Your task to perform on an android device: Do I have any events this weekend? Image 0: 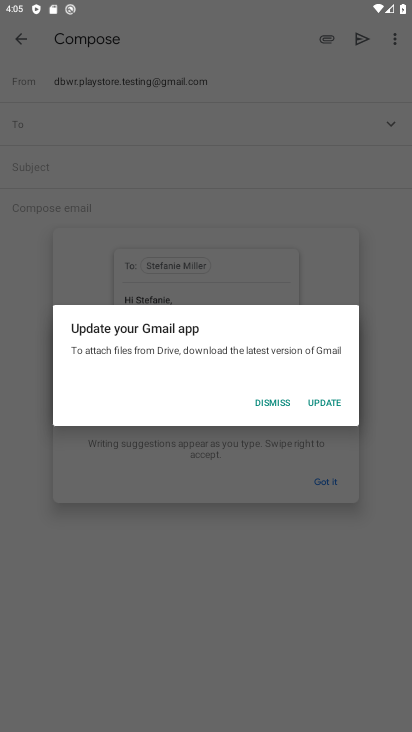
Step 0: press home button
Your task to perform on an android device: Do I have any events this weekend? Image 1: 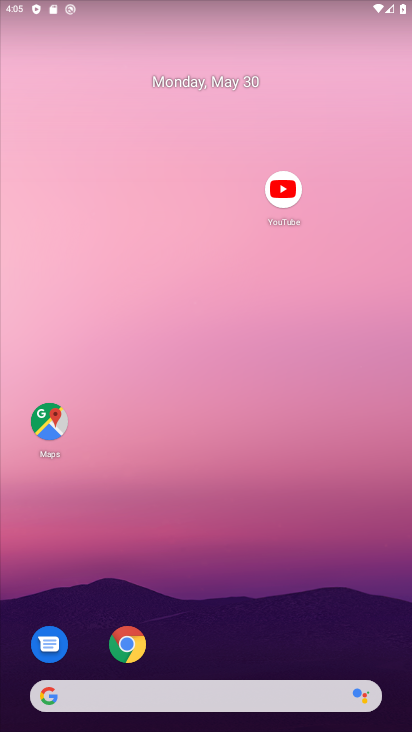
Step 1: click (197, 79)
Your task to perform on an android device: Do I have any events this weekend? Image 2: 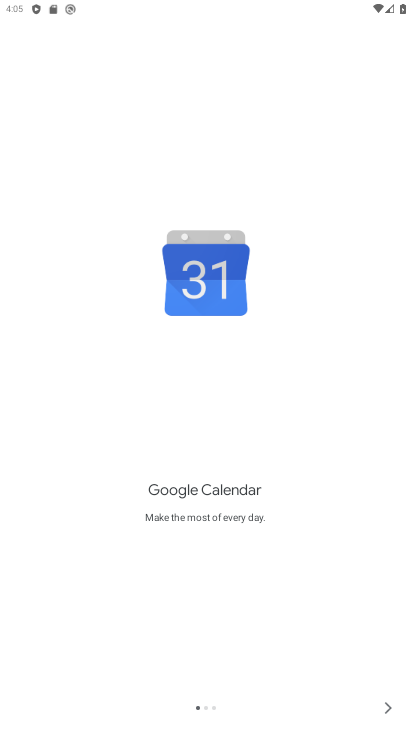
Step 2: click (399, 704)
Your task to perform on an android device: Do I have any events this weekend? Image 3: 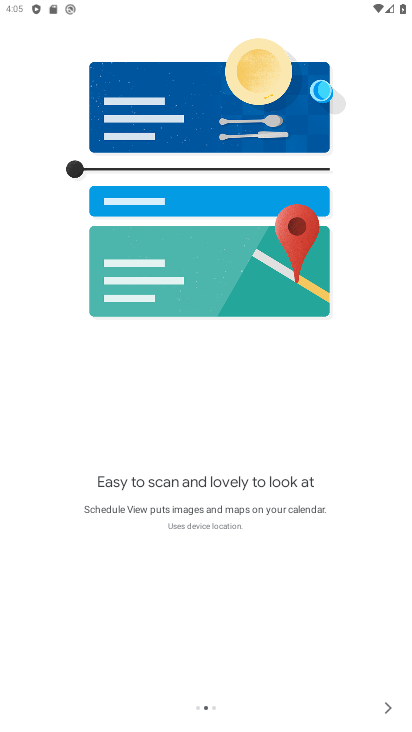
Step 3: click (399, 704)
Your task to perform on an android device: Do I have any events this weekend? Image 4: 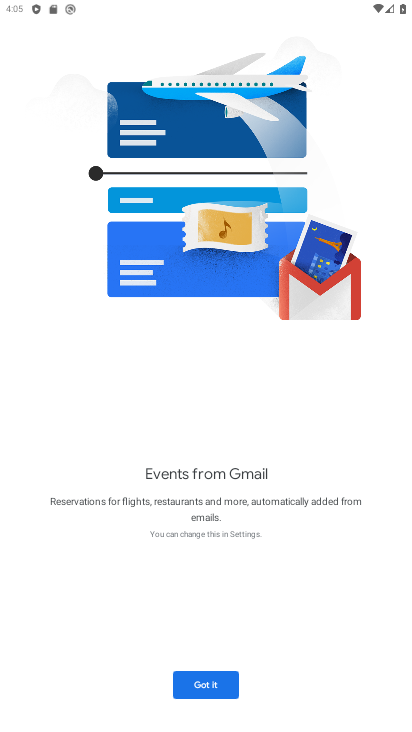
Step 4: click (399, 704)
Your task to perform on an android device: Do I have any events this weekend? Image 5: 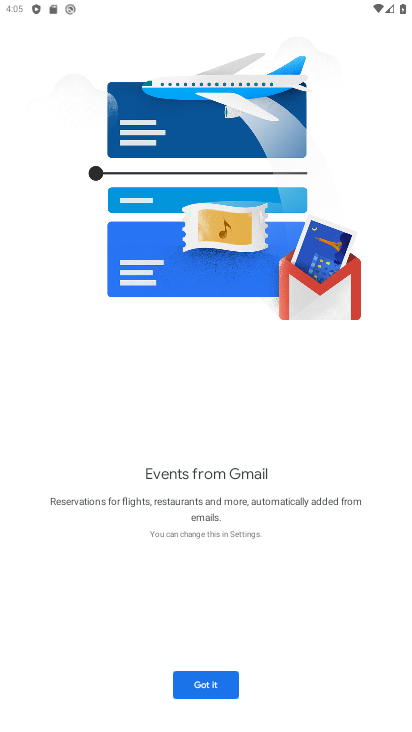
Step 5: click (176, 688)
Your task to perform on an android device: Do I have any events this weekend? Image 6: 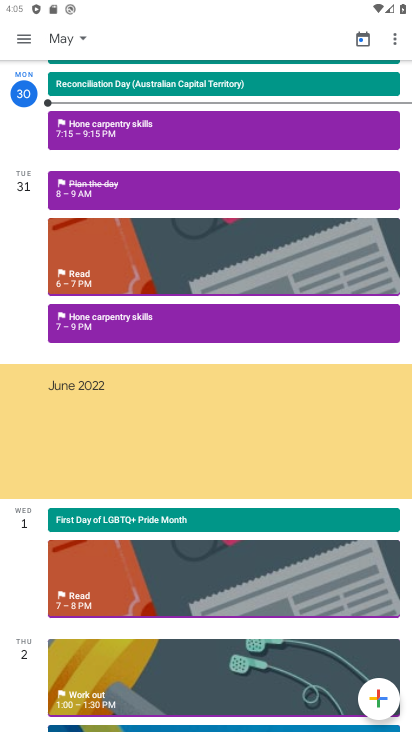
Step 6: click (56, 32)
Your task to perform on an android device: Do I have any events this weekend? Image 7: 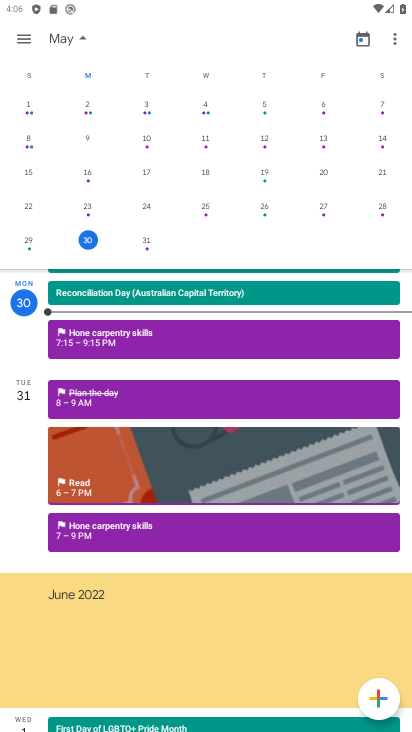
Step 7: drag from (379, 247) to (17, 220)
Your task to perform on an android device: Do I have any events this weekend? Image 8: 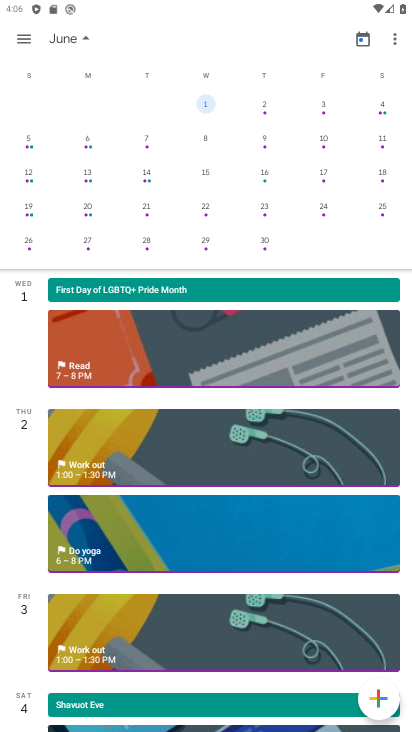
Step 8: click (253, 141)
Your task to perform on an android device: Do I have any events this weekend? Image 9: 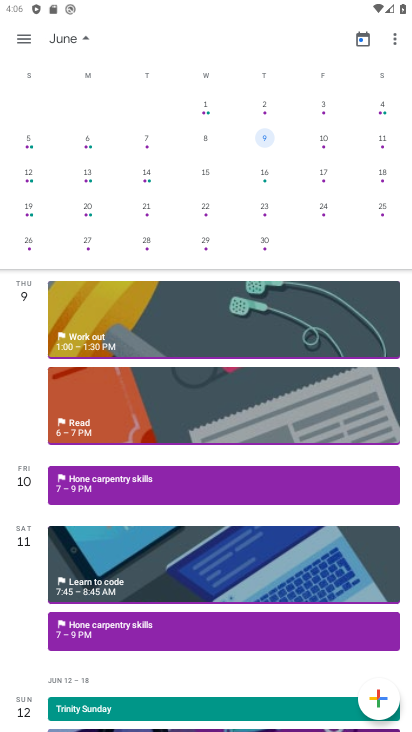
Step 9: click (374, 105)
Your task to perform on an android device: Do I have any events this weekend? Image 10: 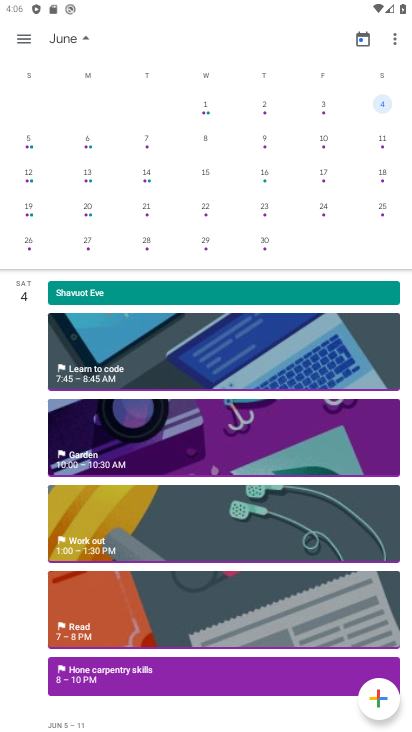
Step 10: task complete